Your task to perform on an android device: Open the calendar and show me this week's events? Image 0: 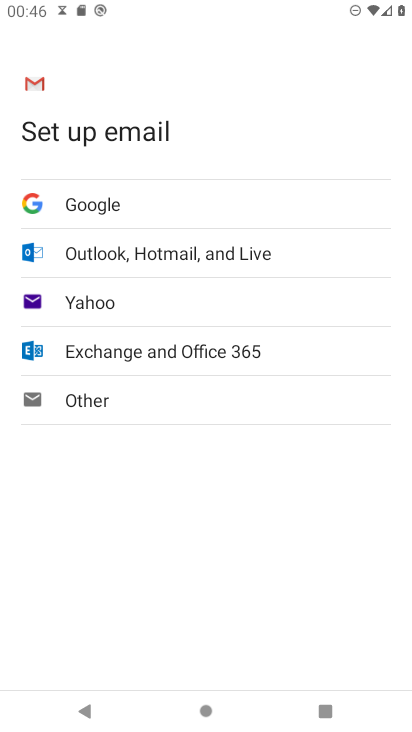
Step 0: press home button
Your task to perform on an android device: Open the calendar and show me this week's events? Image 1: 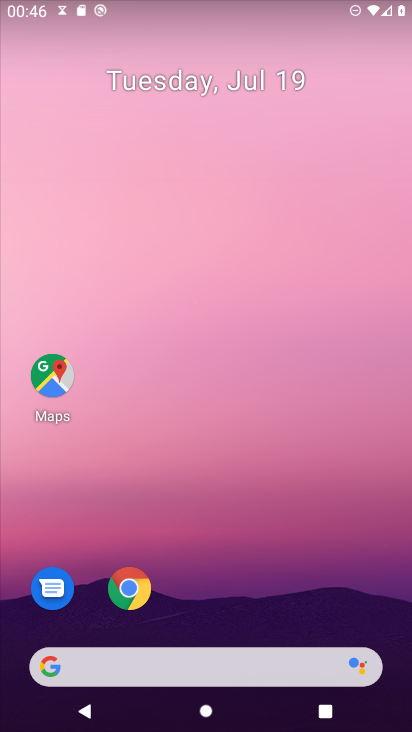
Step 1: press home button
Your task to perform on an android device: Open the calendar and show me this week's events? Image 2: 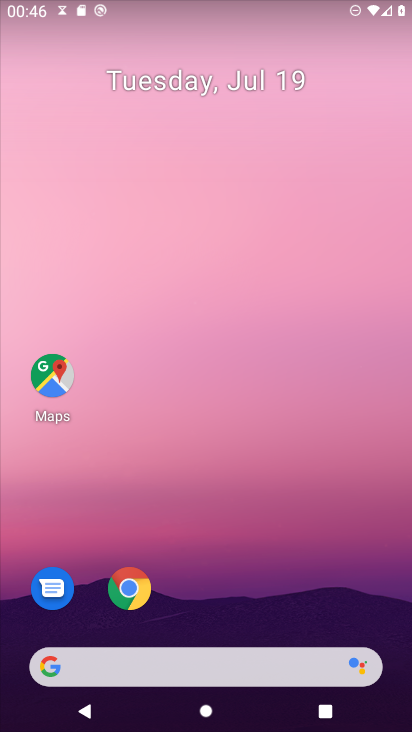
Step 2: drag from (256, 527) to (266, 54)
Your task to perform on an android device: Open the calendar and show me this week's events? Image 3: 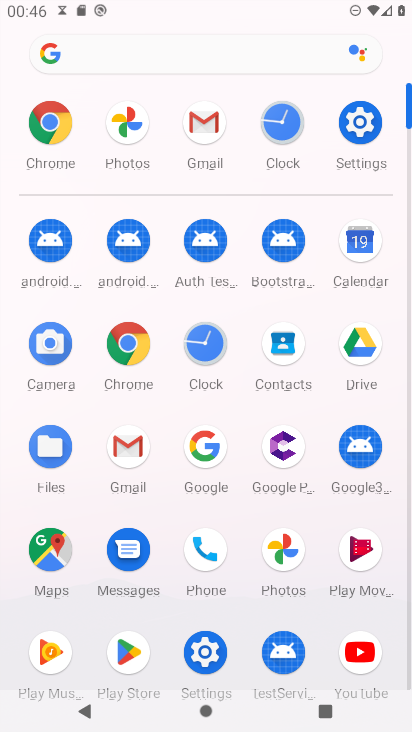
Step 3: click (361, 253)
Your task to perform on an android device: Open the calendar and show me this week's events? Image 4: 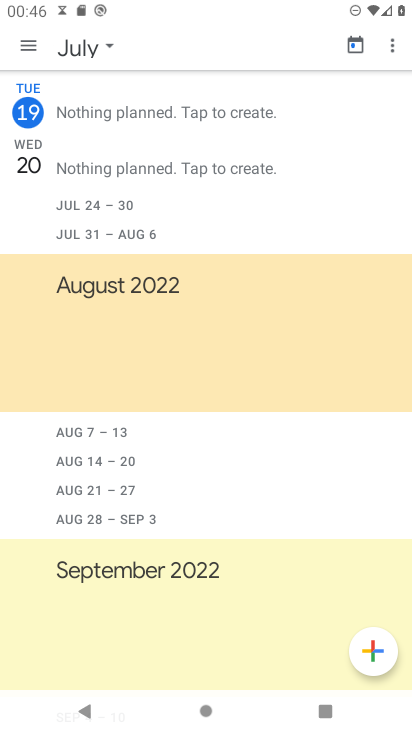
Step 4: click (21, 46)
Your task to perform on an android device: Open the calendar and show me this week's events? Image 5: 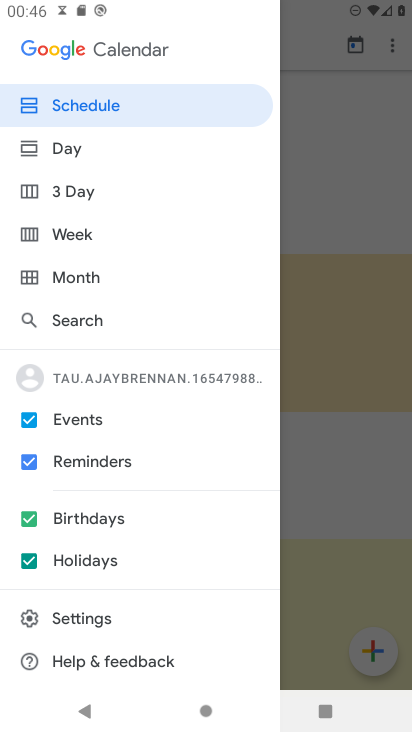
Step 5: click (85, 242)
Your task to perform on an android device: Open the calendar and show me this week's events? Image 6: 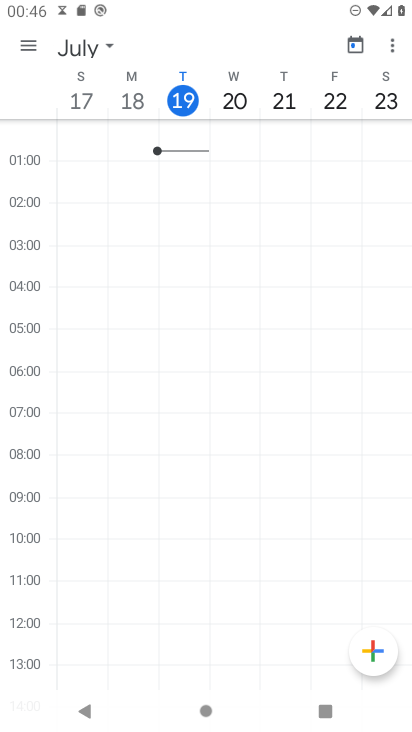
Step 6: task complete